Your task to perform on an android device: check android version Image 0: 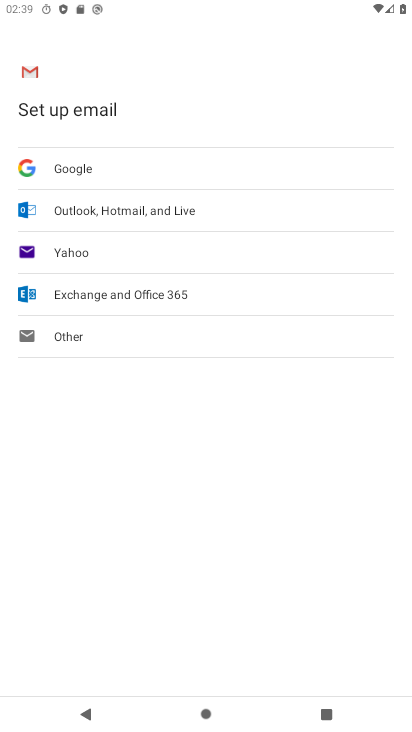
Step 0: press home button
Your task to perform on an android device: check android version Image 1: 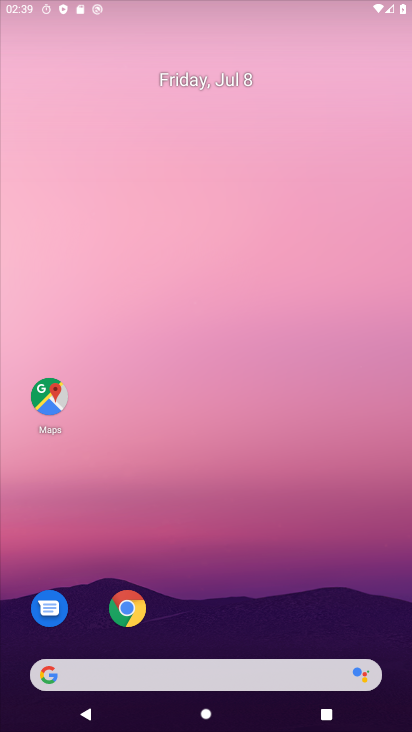
Step 1: drag from (184, 608) to (259, 132)
Your task to perform on an android device: check android version Image 2: 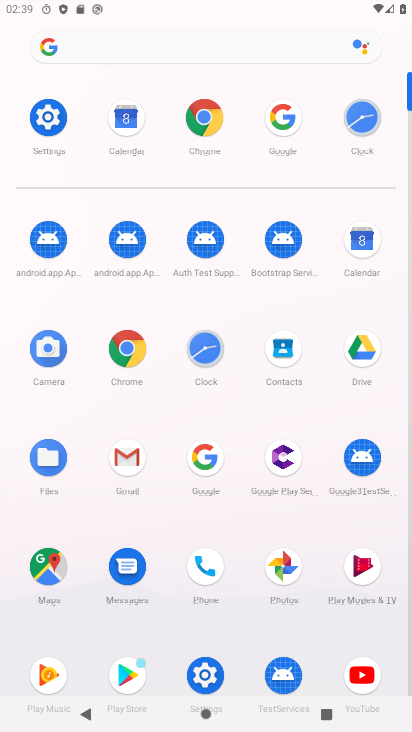
Step 2: click (45, 121)
Your task to perform on an android device: check android version Image 3: 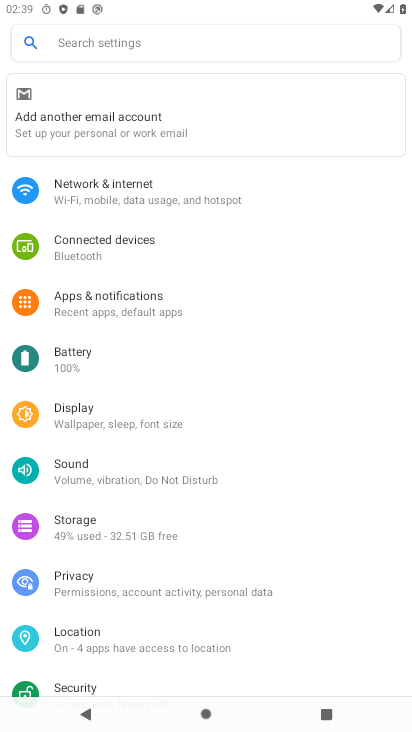
Step 3: drag from (179, 633) to (216, 114)
Your task to perform on an android device: check android version Image 4: 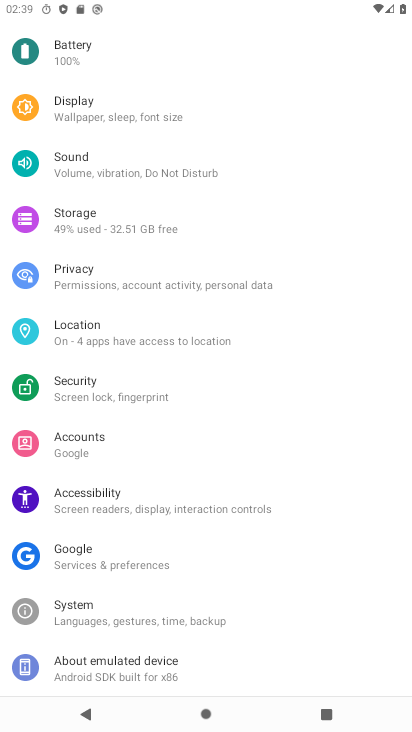
Step 4: click (97, 663)
Your task to perform on an android device: check android version Image 5: 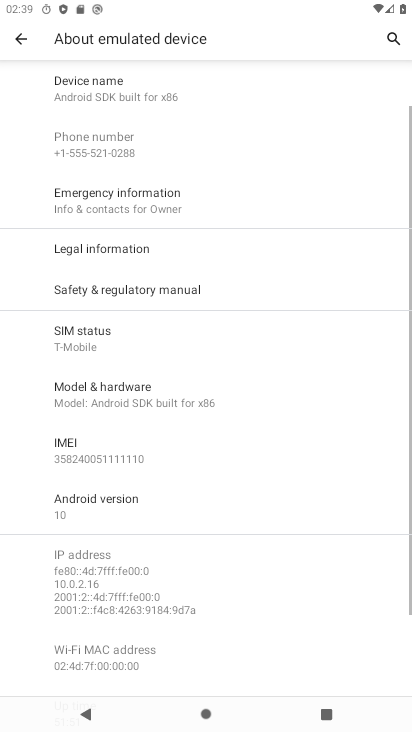
Step 5: drag from (122, 656) to (173, 700)
Your task to perform on an android device: check android version Image 6: 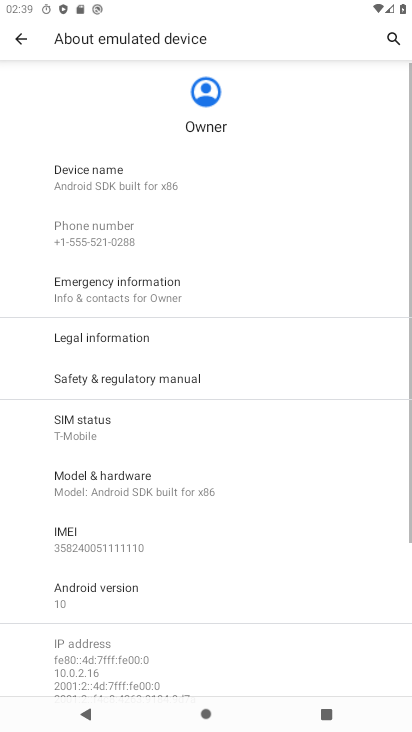
Step 6: click (114, 598)
Your task to perform on an android device: check android version Image 7: 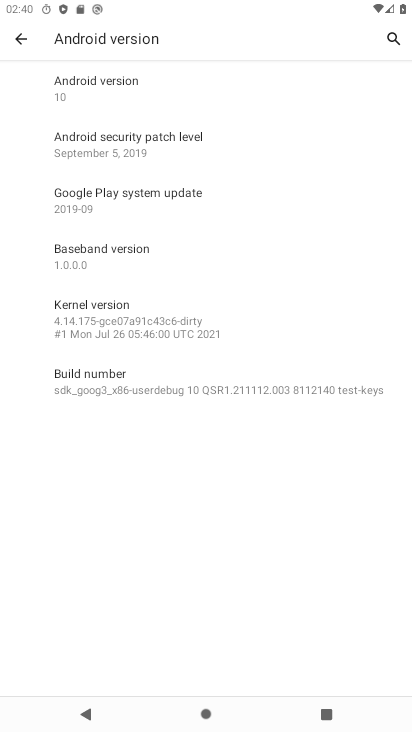
Step 7: task complete